Your task to perform on an android device: Open Chrome and go to settings Image 0: 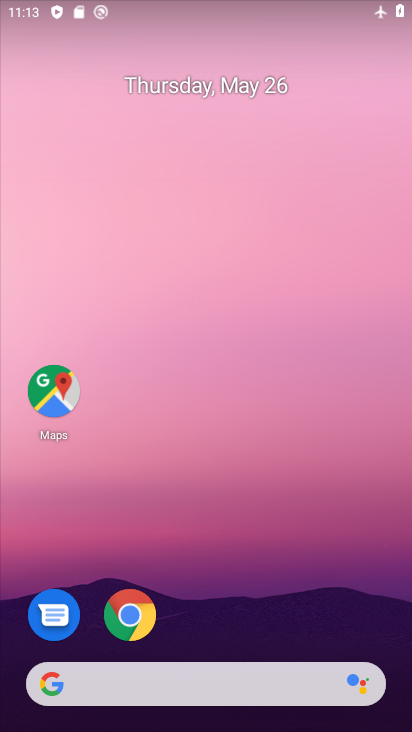
Step 0: click (128, 614)
Your task to perform on an android device: Open Chrome and go to settings Image 1: 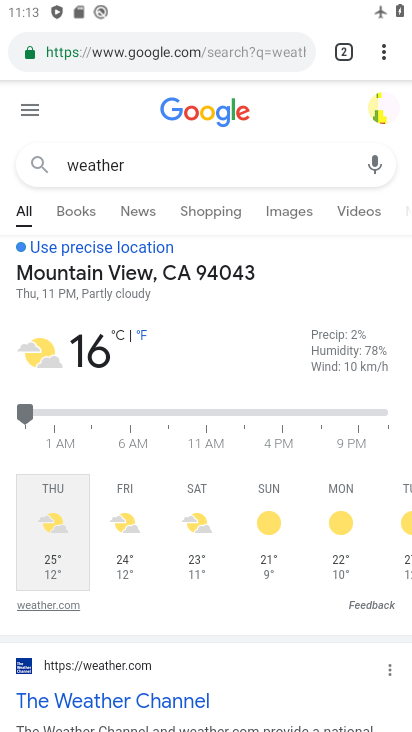
Step 1: drag from (288, 448) to (329, 362)
Your task to perform on an android device: Open Chrome and go to settings Image 2: 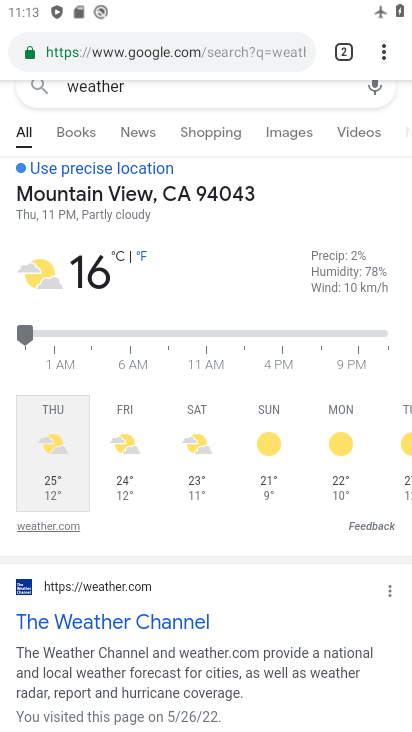
Step 2: drag from (385, 3) to (334, 716)
Your task to perform on an android device: Open Chrome and go to settings Image 3: 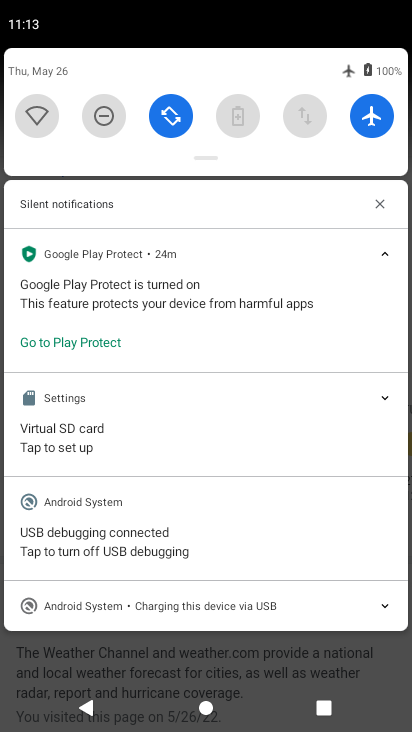
Step 3: click (383, 117)
Your task to perform on an android device: Open Chrome and go to settings Image 4: 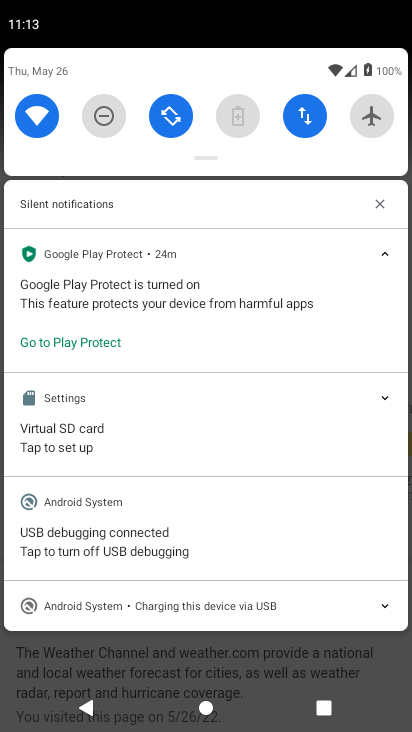
Step 4: task complete